Your task to perform on an android device: add a label to a message in the gmail app Image 0: 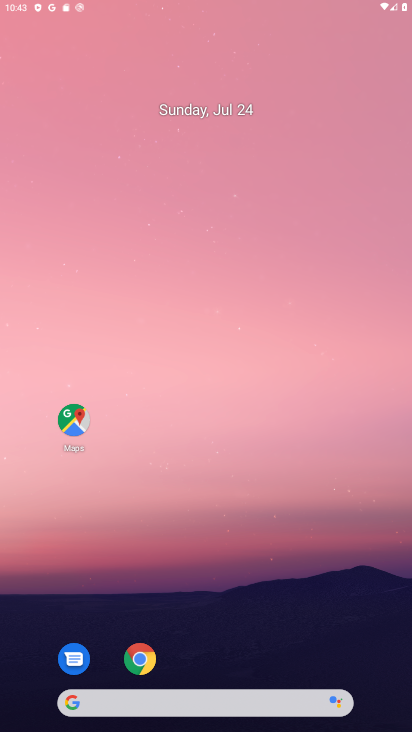
Step 0: drag from (289, 650) to (269, 151)
Your task to perform on an android device: add a label to a message in the gmail app Image 1: 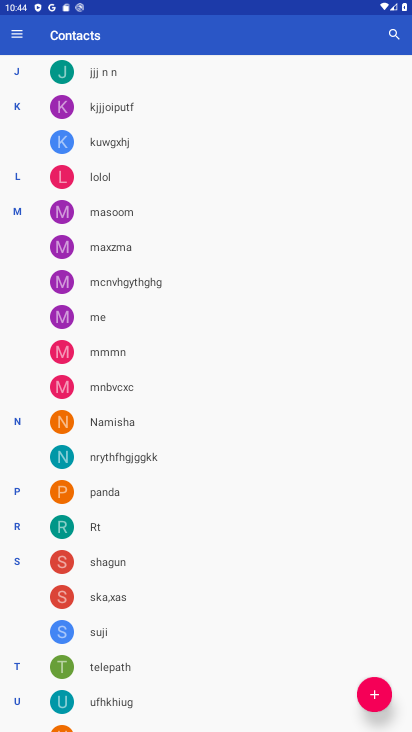
Step 1: press home button
Your task to perform on an android device: add a label to a message in the gmail app Image 2: 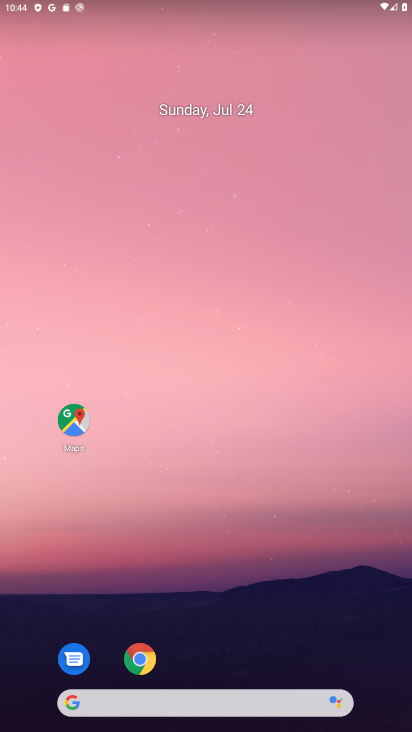
Step 2: drag from (203, 663) to (262, 372)
Your task to perform on an android device: add a label to a message in the gmail app Image 3: 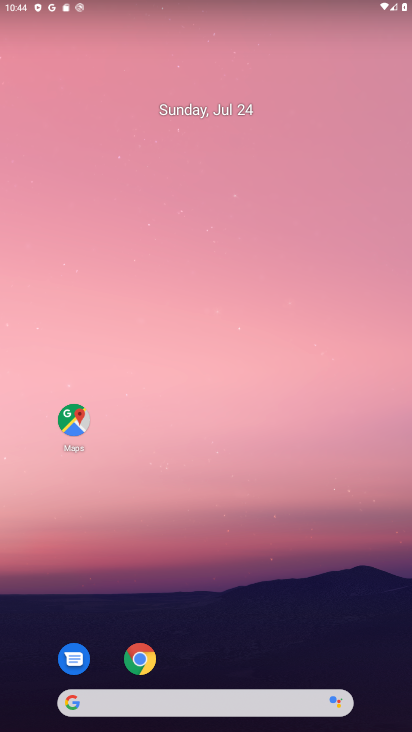
Step 3: drag from (194, 651) to (226, 157)
Your task to perform on an android device: add a label to a message in the gmail app Image 4: 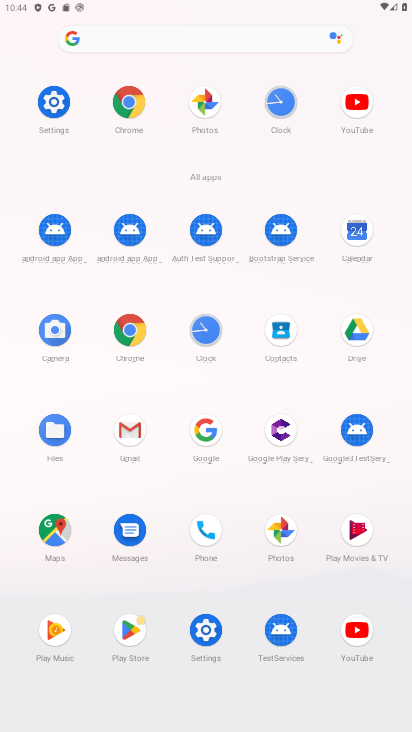
Step 4: click (132, 438)
Your task to perform on an android device: add a label to a message in the gmail app Image 5: 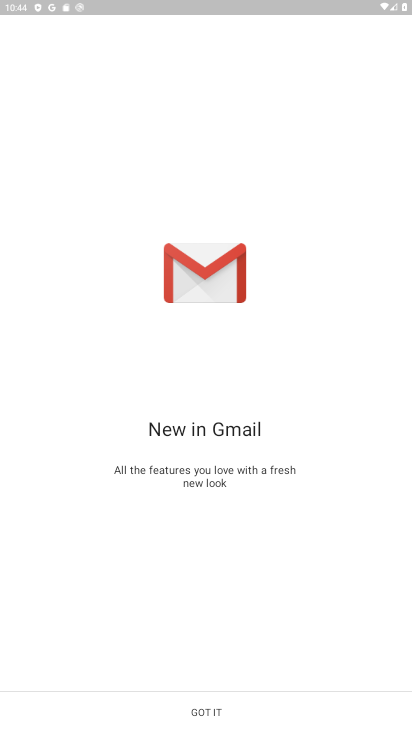
Step 5: click (188, 711)
Your task to perform on an android device: add a label to a message in the gmail app Image 6: 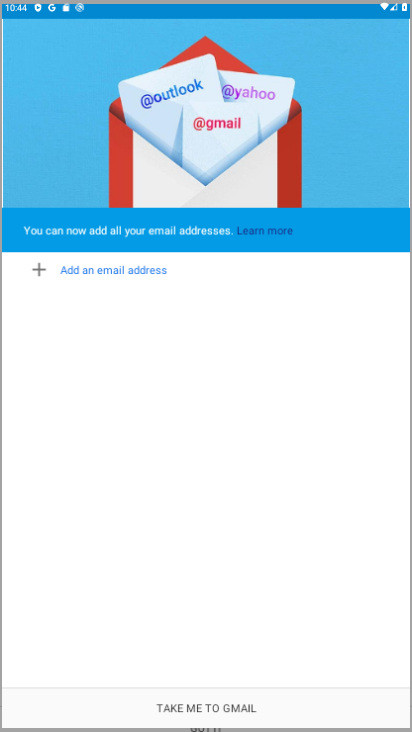
Step 6: click (188, 711)
Your task to perform on an android device: add a label to a message in the gmail app Image 7: 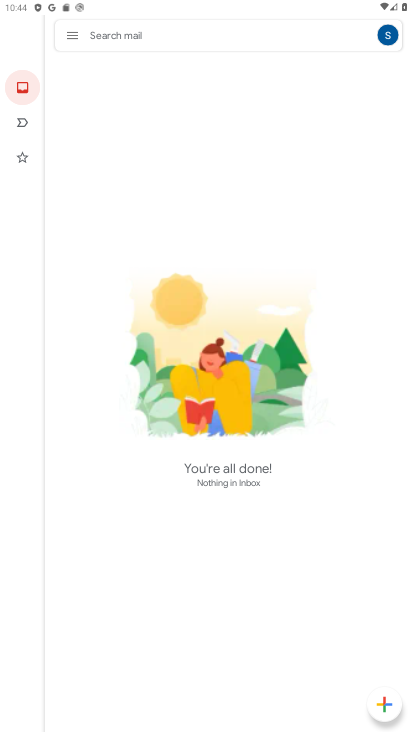
Step 7: click (79, 38)
Your task to perform on an android device: add a label to a message in the gmail app Image 8: 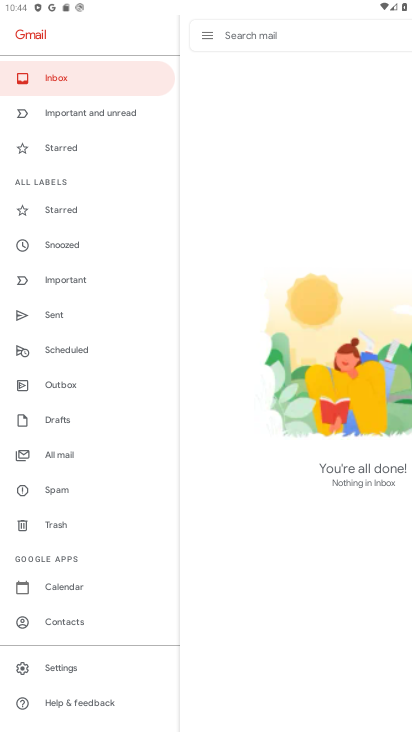
Step 8: click (57, 446)
Your task to perform on an android device: add a label to a message in the gmail app Image 9: 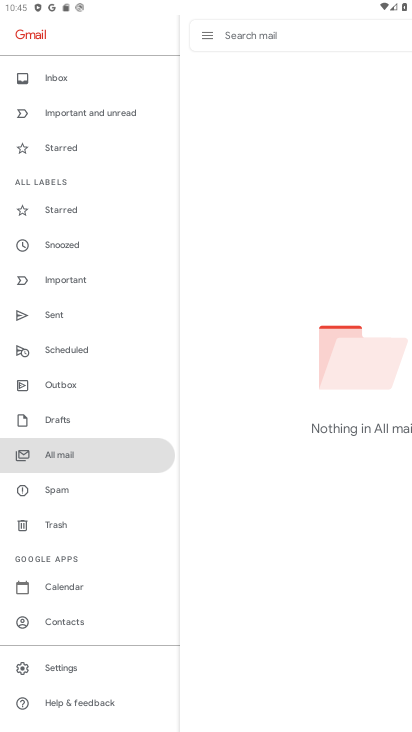
Step 9: task complete